Your task to perform on an android device: change alarm snooze length Image 0: 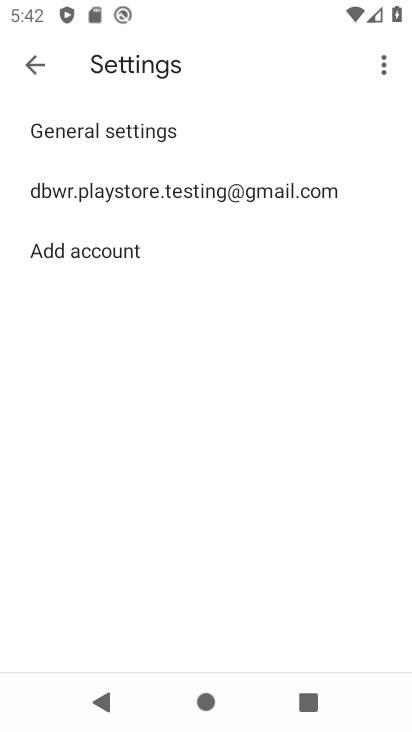
Step 0: press home button
Your task to perform on an android device: change alarm snooze length Image 1: 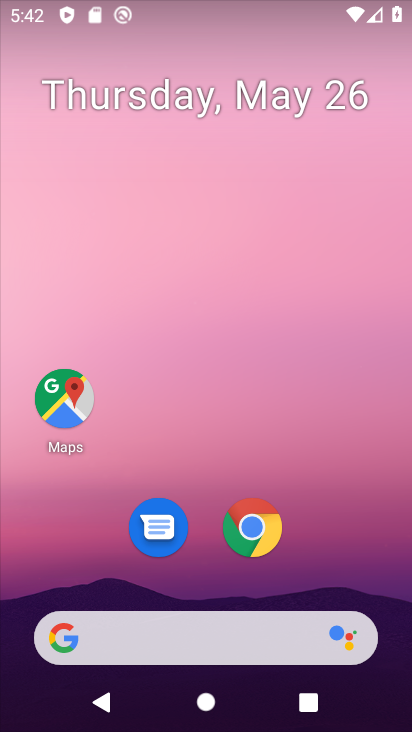
Step 1: drag from (173, 606) to (245, 223)
Your task to perform on an android device: change alarm snooze length Image 2: 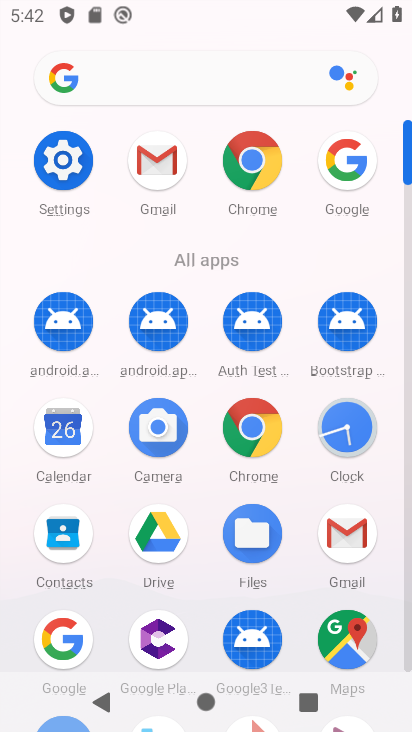
Step 2: click (64, 171)
Your task to perform on an android device: change alarm snooze length Image 3: 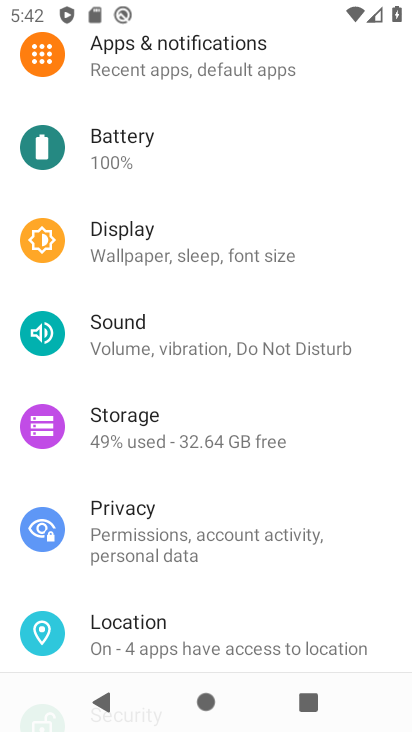
Step 3: press home button
Your task to perform on an android device: change alarm snooze length Image 4: 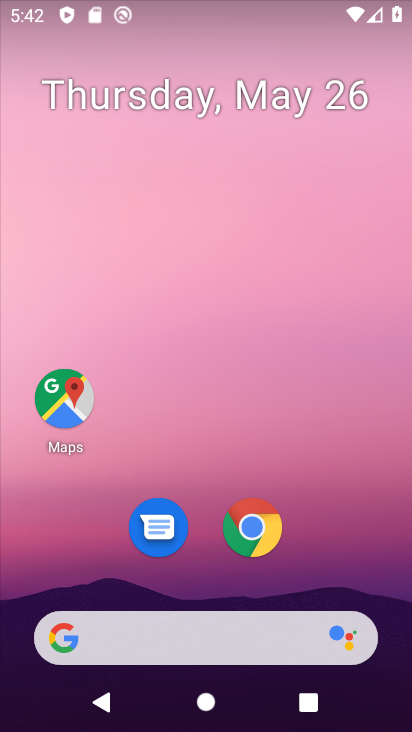
Step 4: drag from (220, 616) to (268, 156)
Your task to perform on an android device: change alarm snooze length Image 5: 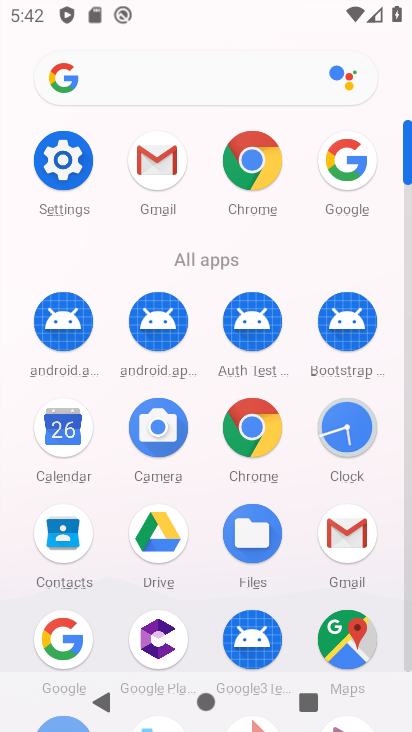
Step 5: click (342, 429)
Your task to perform on an android device: change alarm snooze length Image 6: 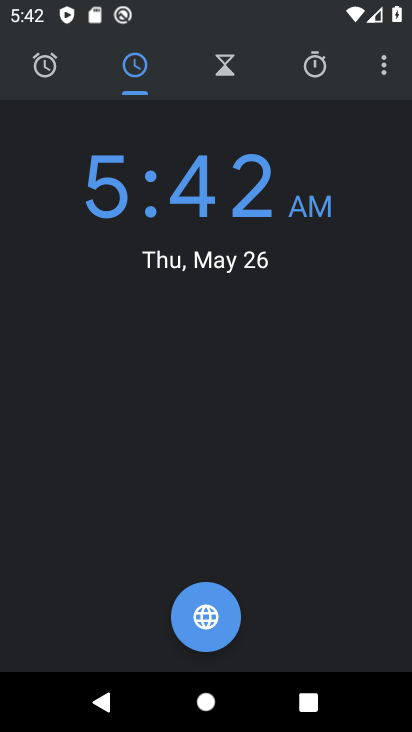
Step 6: click (382, 61)
Your task to perform on an android device: change alarm snooze length Image 7: 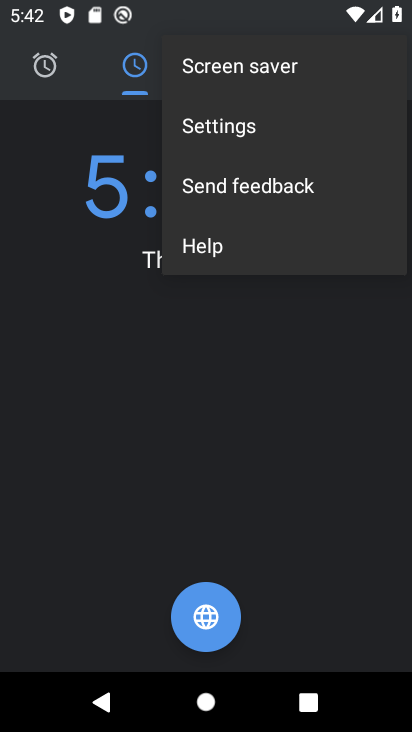
Step 7: click (216, 117)
Your task to perform on an android device: change alarm snooze length Image 8: 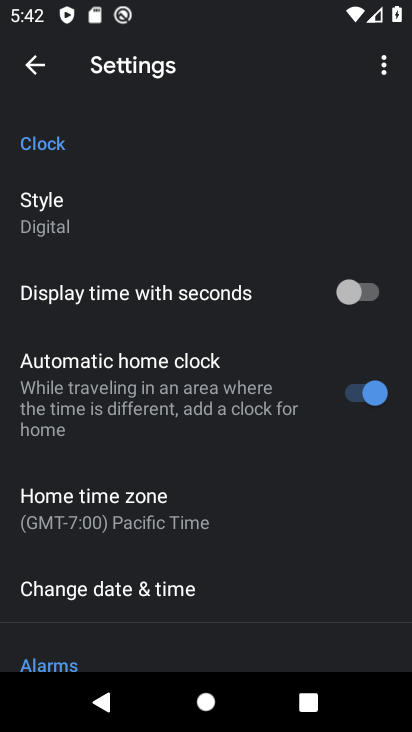
Step 8: drag from (116, 603) to (175, 156)
Your task to perform on an android device: change alarm snooze length Image 9: 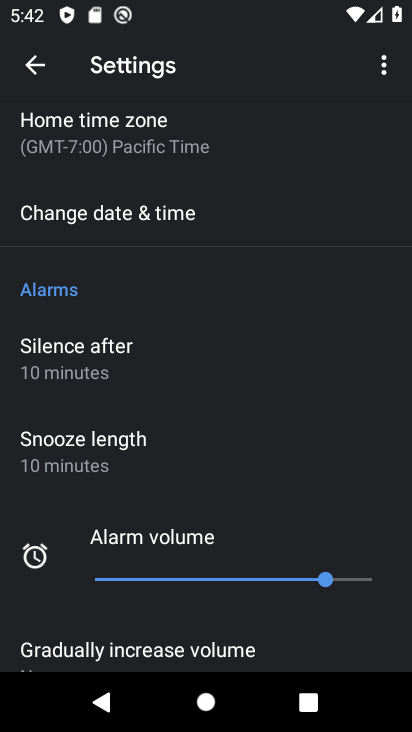
Step 9: drag from (59, 621) to (109, 245)
Your task to perform on an android device: change alarm snooze length Image 10: 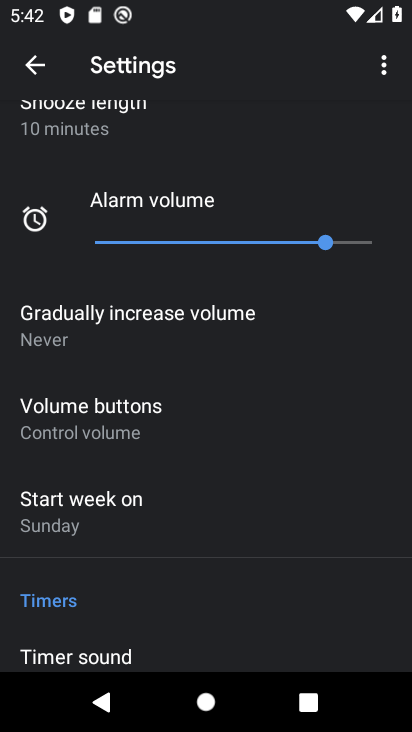
Step 10: drag from (91, 594) to (110, 268)
Your task to perform on an android device: change alarm snooze length Image 11: 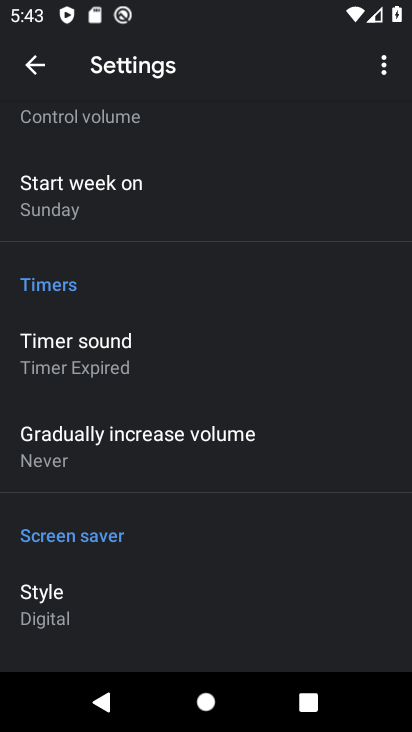
Step 11: drag from (163, 154) to (164, 587)
Your task to perform on an android device: change alarm snooze length Image 12: 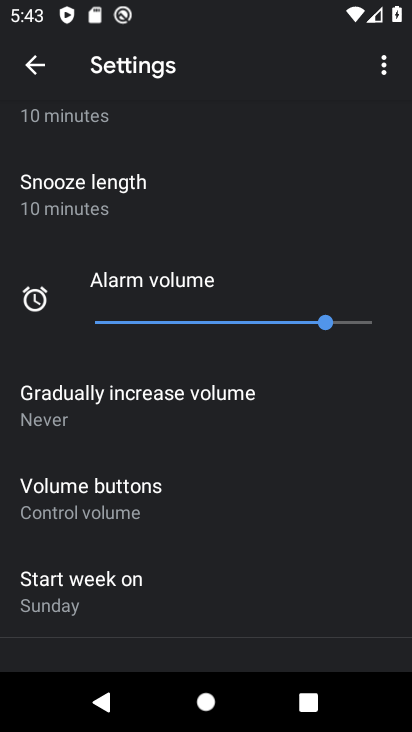
Step 12: click (117, 187)
Your task to perform on an android device: change alarm snooze length Image 13: 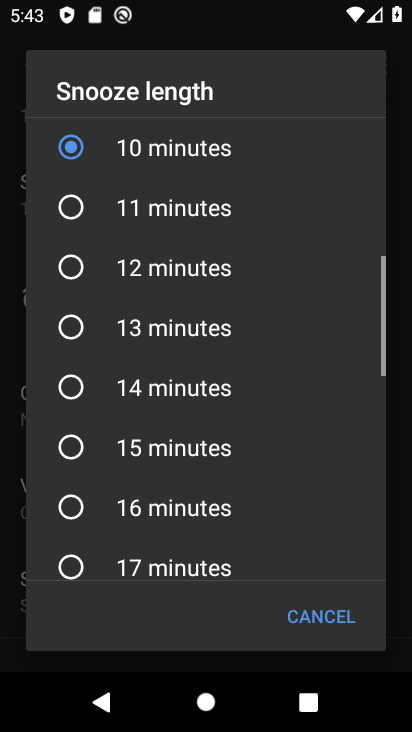
Step 13: click (128, 388)
Your task to perform on an android device: change alarm snooze length Image 14: 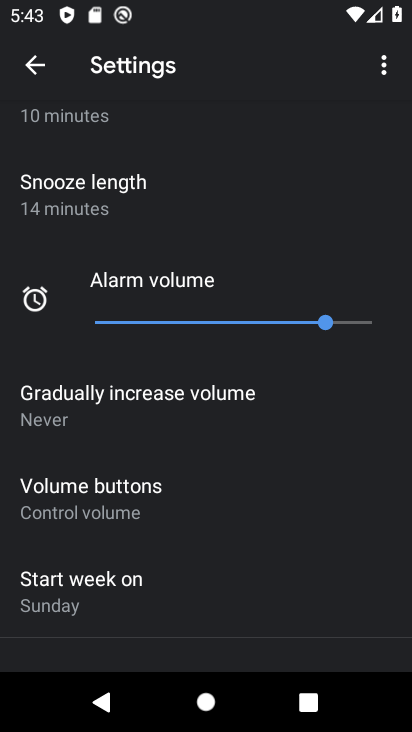
Step 14: task complete